Your task to perform on an android device: Go to Yahoo.com Image 0: 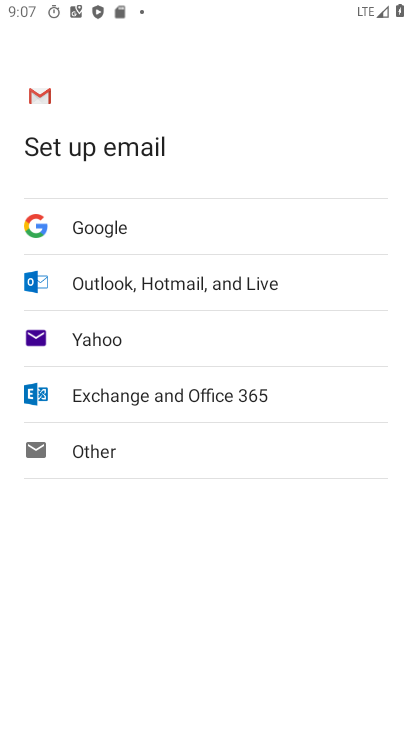
Step 0: press back button
Your task to perform on an android device: Go to Yahoo.com Image 1: 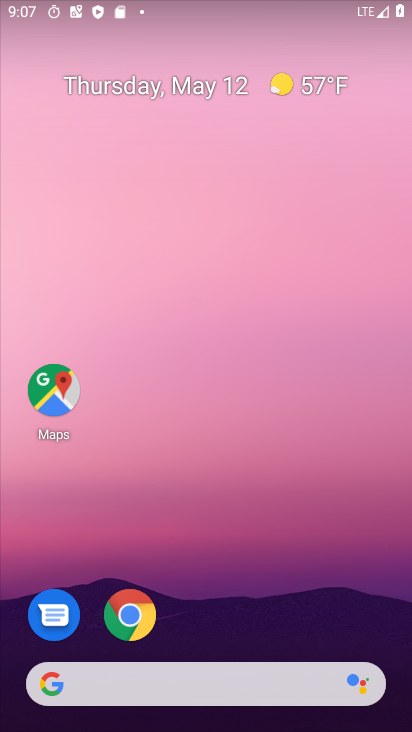
Step 1: drag from (237, 519) to (174, 33)
Your task to perform on an android device: Go to Yahoo.com Image 2: 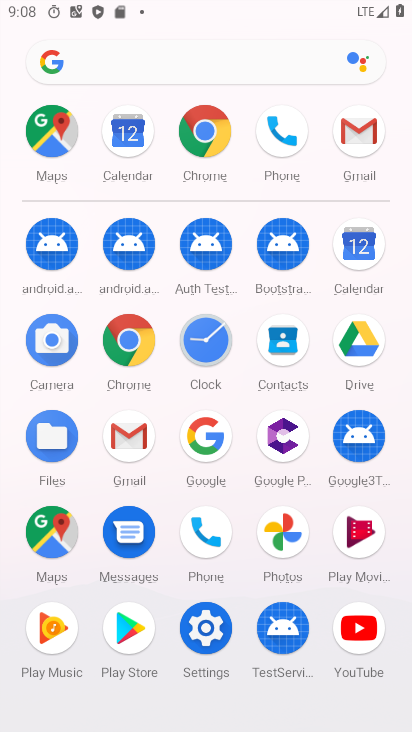
Step 2: drag from (5, 541) to (7, 164)
Your task to perform on an android device: Go to Yahoo.com Image 3: 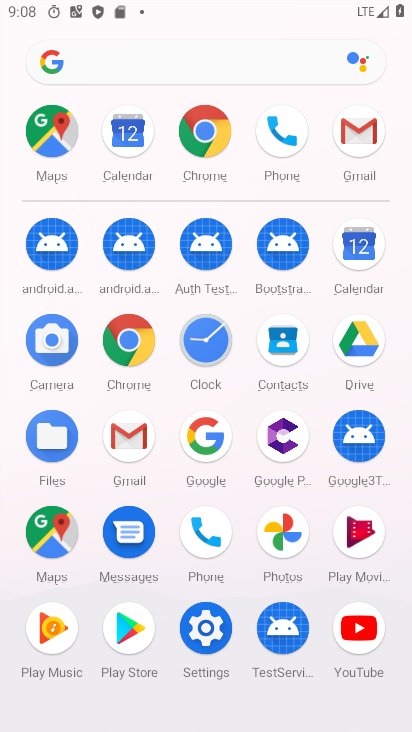
Step 3: click (124, 333)
Your task to perform on an android device: Go to Yahoo.com Image 4: 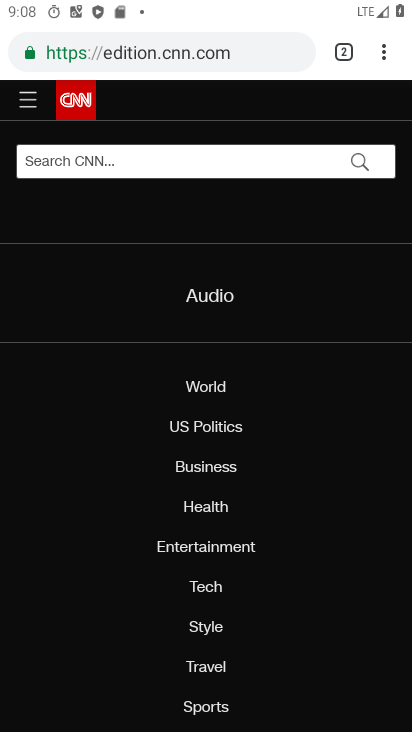
Step 4: click (203, 53)
Your task to perform on an android device: Go to Yahoo.com Image 5: 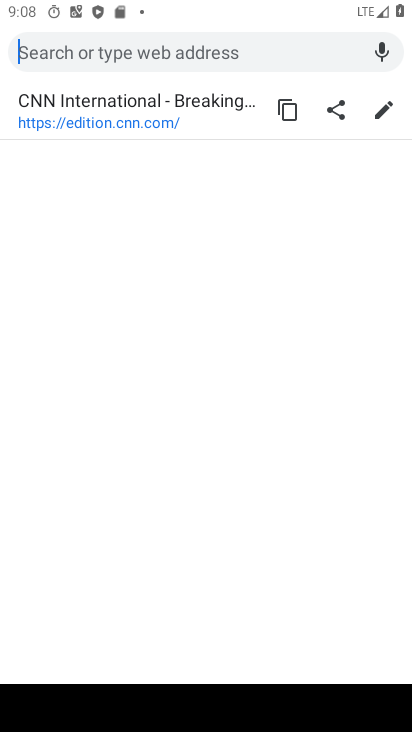
Step 5: drag from (370, 489) to (178, 729)
Your task to perform on an android device: Go to Yahoo.com Image 6: 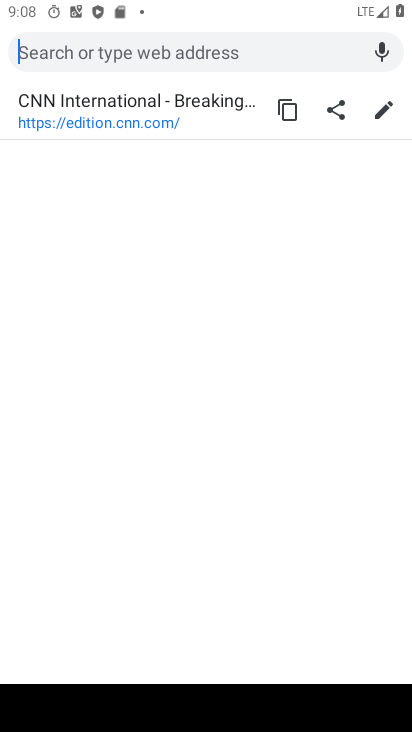
Step 6: type " Yahoo.com"
Your task to perform on an android device: Go to Yahoo.com Image 7: 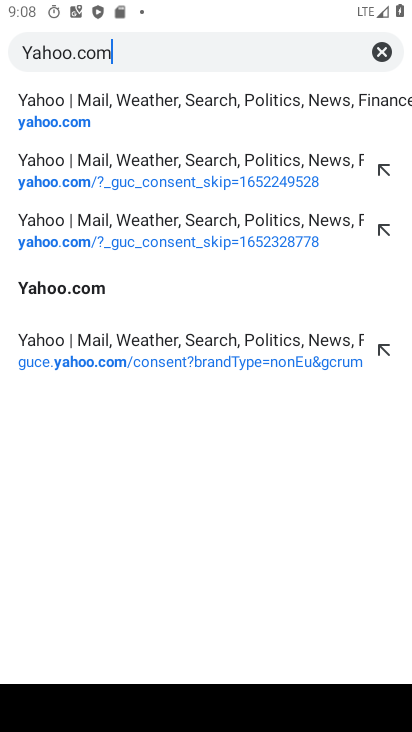
Step 7: type ""
Your task to perform on an android device: Go to Yahoo.com Image 8: 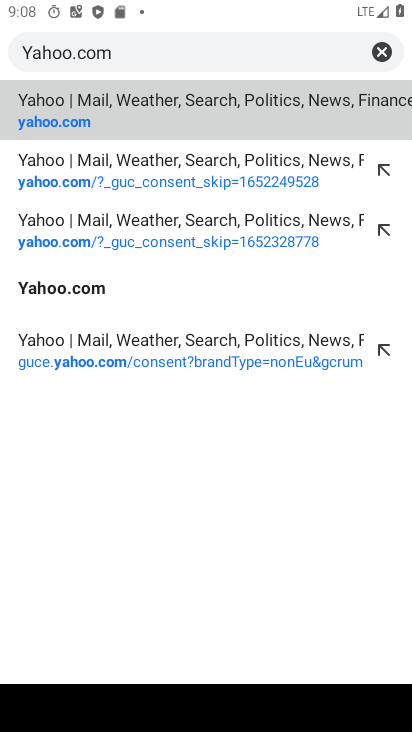
Step 8: click (236, 116)
Your task to perform on an android device: Go to Yahoo.com Image 9: 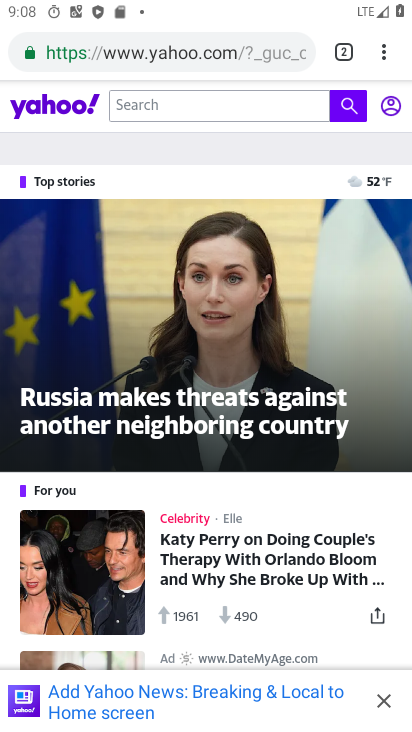
Step 9: task complete